Your task to perform on an android device: Is it going to rain tomorrow? Image 0: 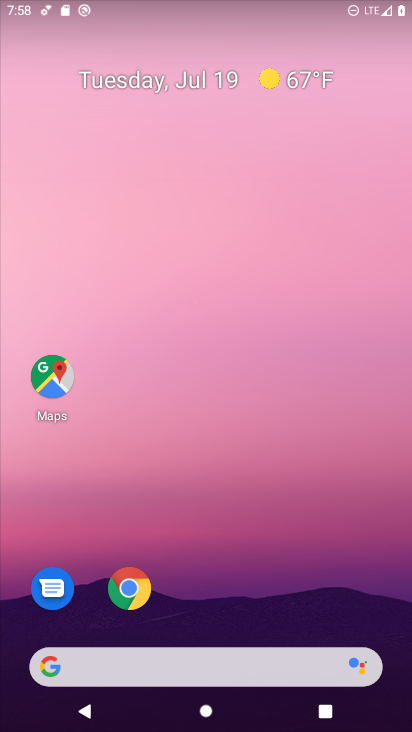
Step 0: click (180, 662)
Your task to perform on an android device: Is it going to rain tomorrow? Image 1: 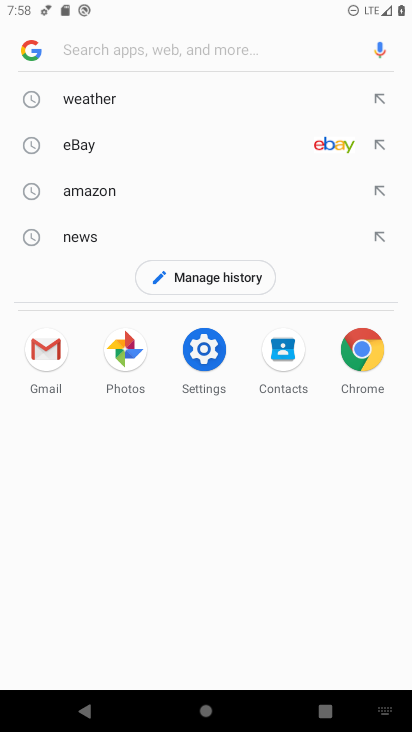
Step 1: click (116, 102)
Your task to perform on an android device: Is it going to rain tomorrow? Image 2: 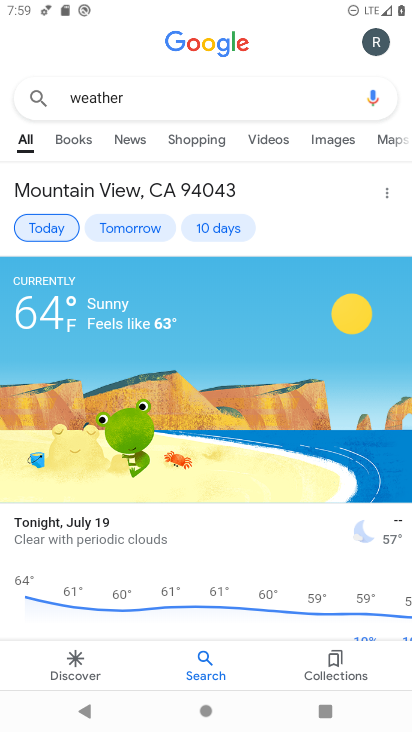
Step 2: click (130, 229)
Your task to perform on an android device: Is it going to rain tomorrow? Image 3: 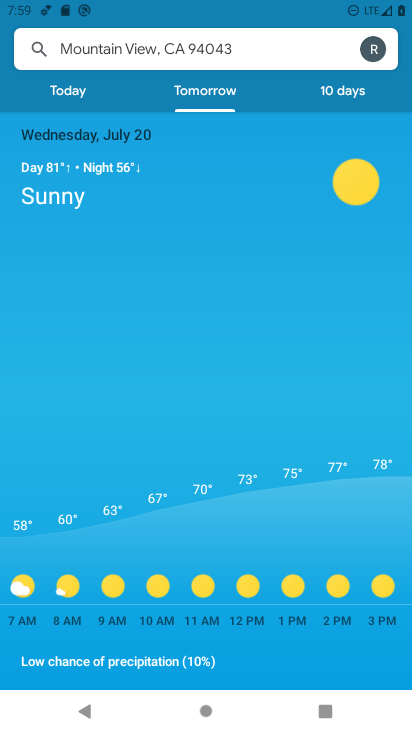
Step 3: task complete